Your task to perform on an android device: Go to location settings Image 0: 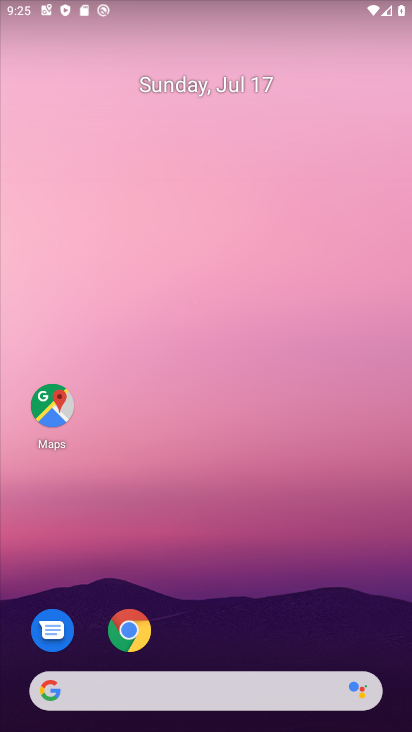
Step 0: drag from (314, 695) to (328, 0)
Your task to perform on an android device: Go to location settings Image 1: 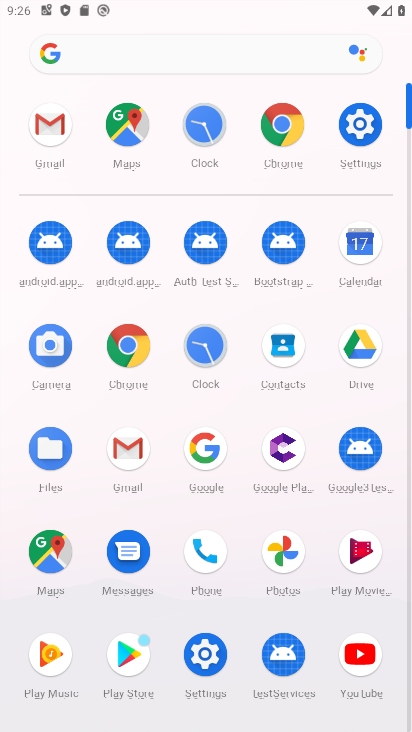
Step 1: click (364, 114)
Your task to perform on an android device: Go to location settings Image 2: 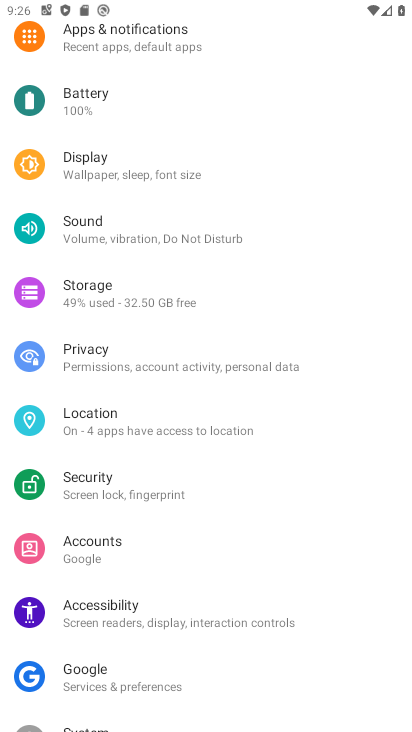
Step 2: click (138, 425)
Your task to perform on an android device: Go to location settings Image 3: 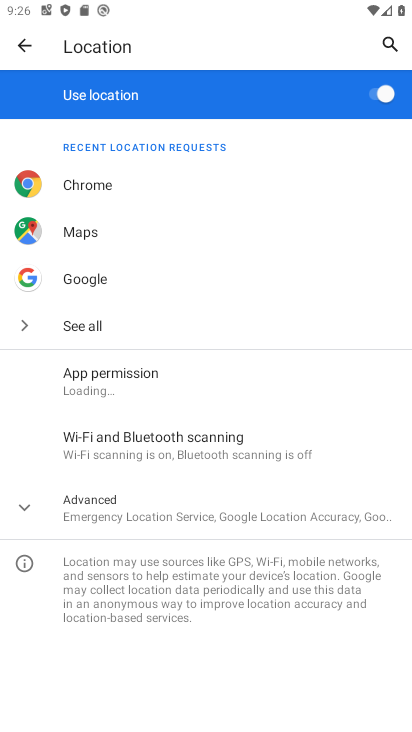
Step 3: task complete